Your task to perform on an android device: Show me popular videos on Youtube Image 0: 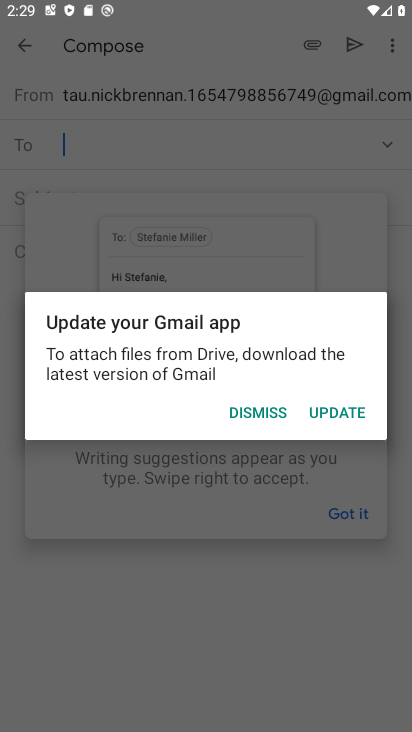
Step 0: press home button
Your task to perform on an android device: Show me popular videos on Youtube Image 1: 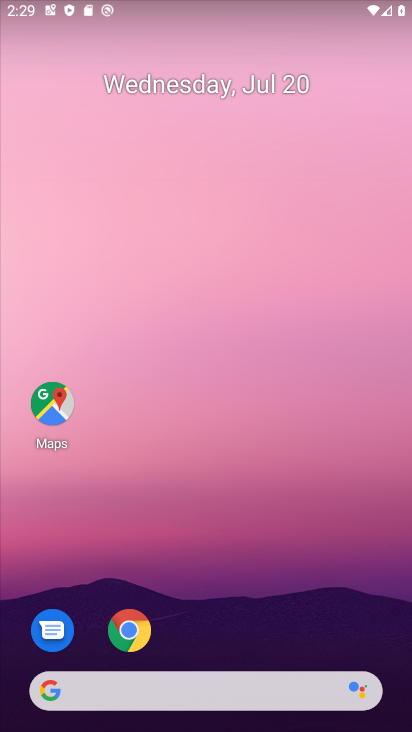
Step 1: drag from (330, 627) to (338, 220)
Your task to perform on an android device: Show me popular videos on Youtube Image 2: 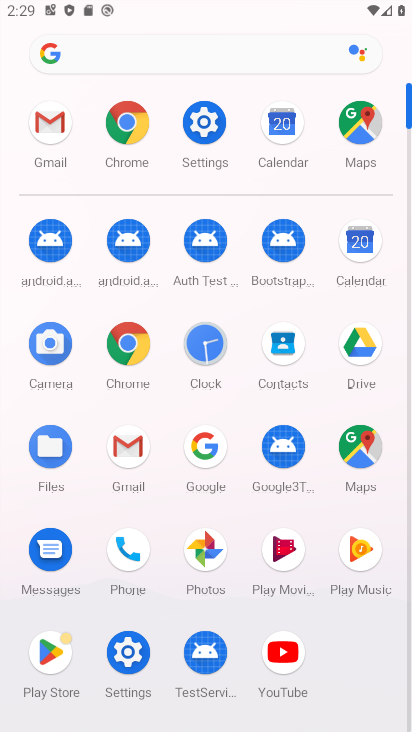
Step 2: click (298, 657)
Your task to perform on an android device: Show me popular videos on Youtube Image 3: 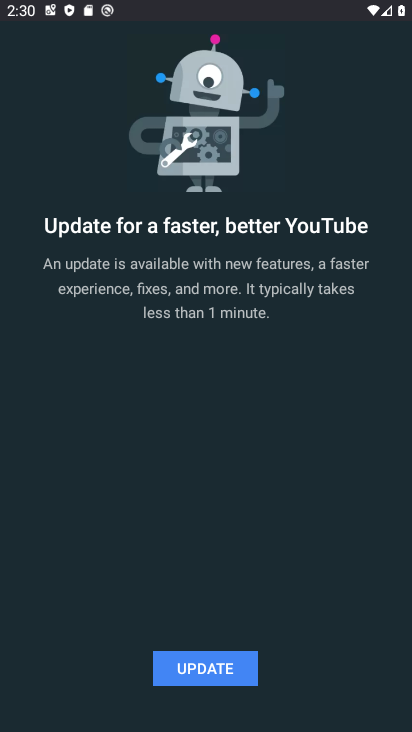
Step 3: click (242, 668)
Your task to perform on an android device: Show me popular videos on Youtube Image 4: 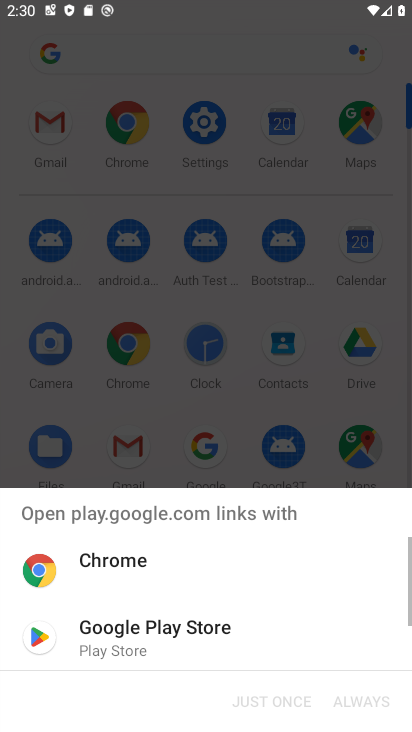
Step 4: click (175, 631)
Your task to perform on an android device: Show me popular videos on Youtube Image 5: 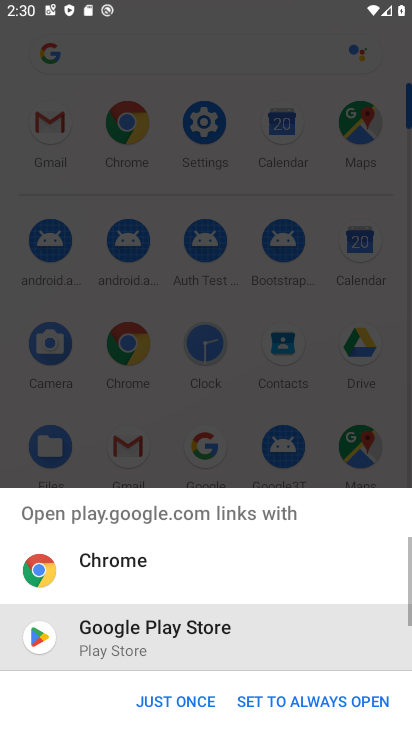
Step 5: click (207, 698)
Your task to perform on an android device: Show me popular videos on Youtube Image 6: 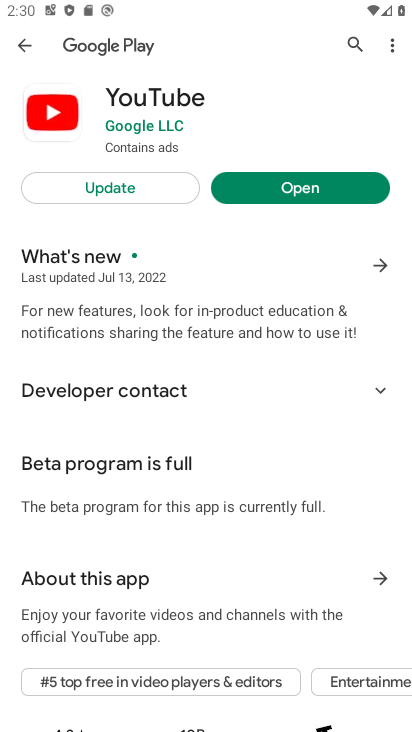
Step 6: click (117, 192)
Your task to perform on an android device: Show me popular videos on Youtube Image 7: 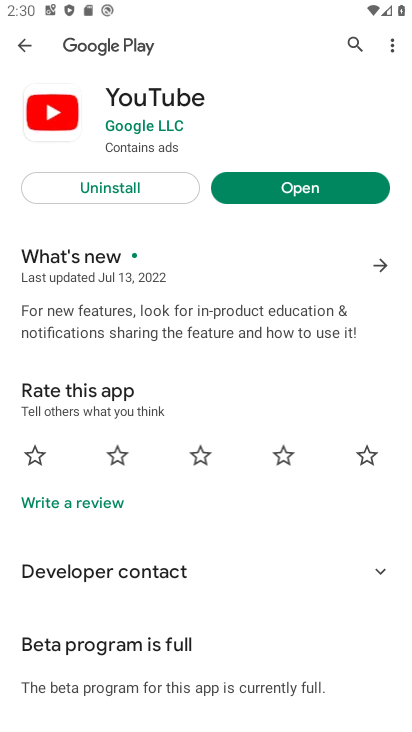
Step 7: click (313, 190)
Your task to perform on an android device: Show me popular videos on Youtube Image 8: 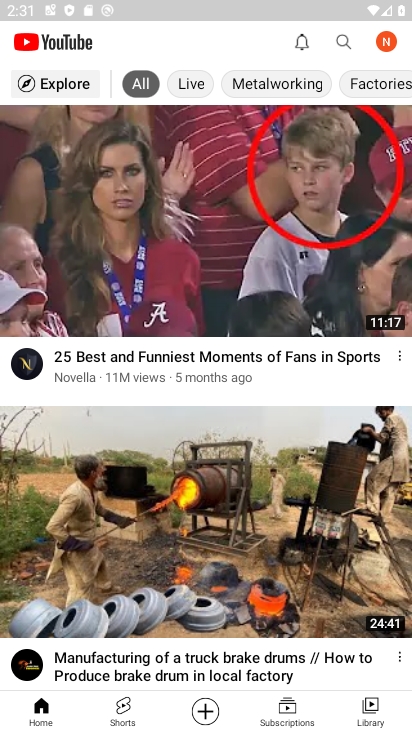
Step 8: task complete